Your task to perform on an android device: Open eBay Image 0: 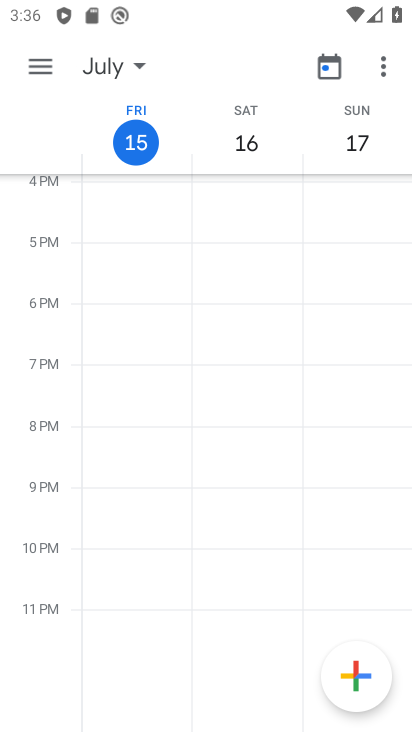
Step 0: press home button
Your task to perform on an android device: Open eBay Image 1: 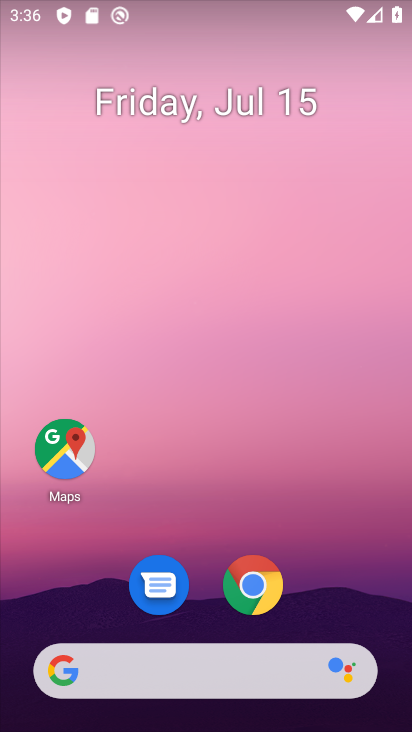
Step 1: click (232, 670)
Your task to perform on an android device: Open eBay Image 2: 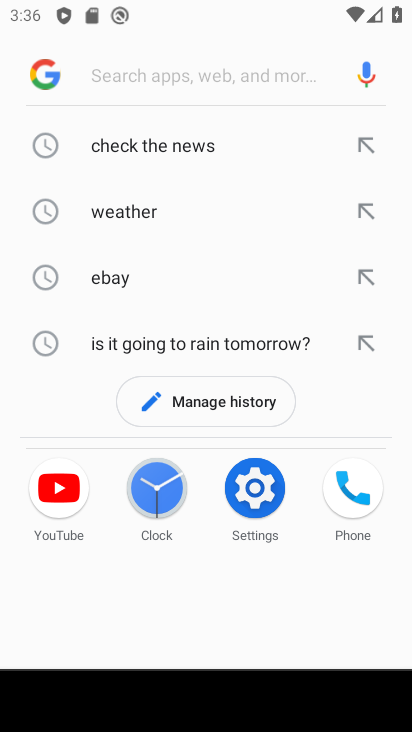
Step 2: click (122, 276)
Your task to perform on an android device: Open eBay Image 3: 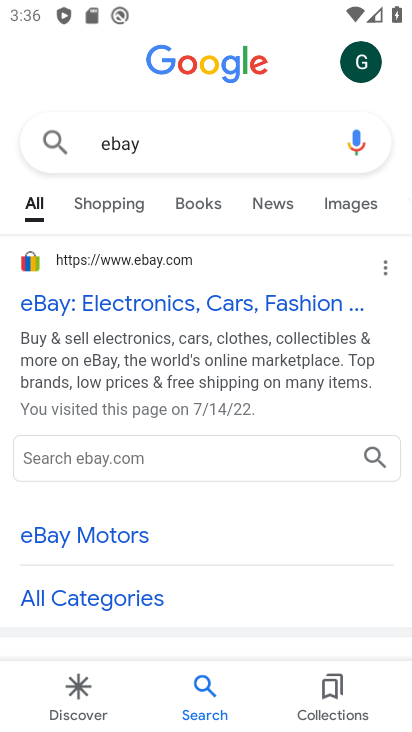
Step 3: click (51, 300)
Your task to perform on an android device: Open eBay Image 4: 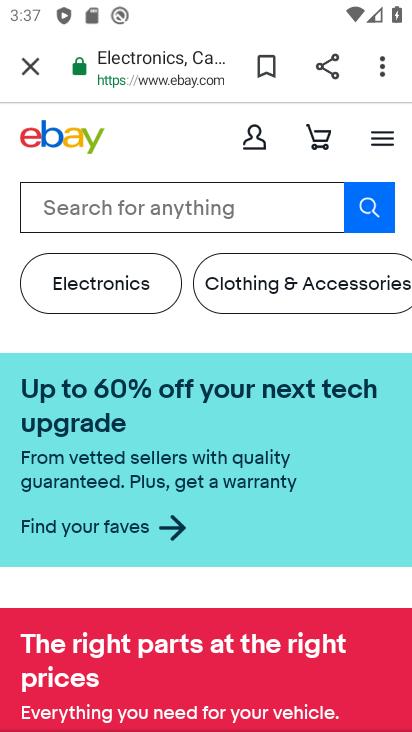
Step 4: task complete